Your task to perform on an android device: Show me recent news Image 0: 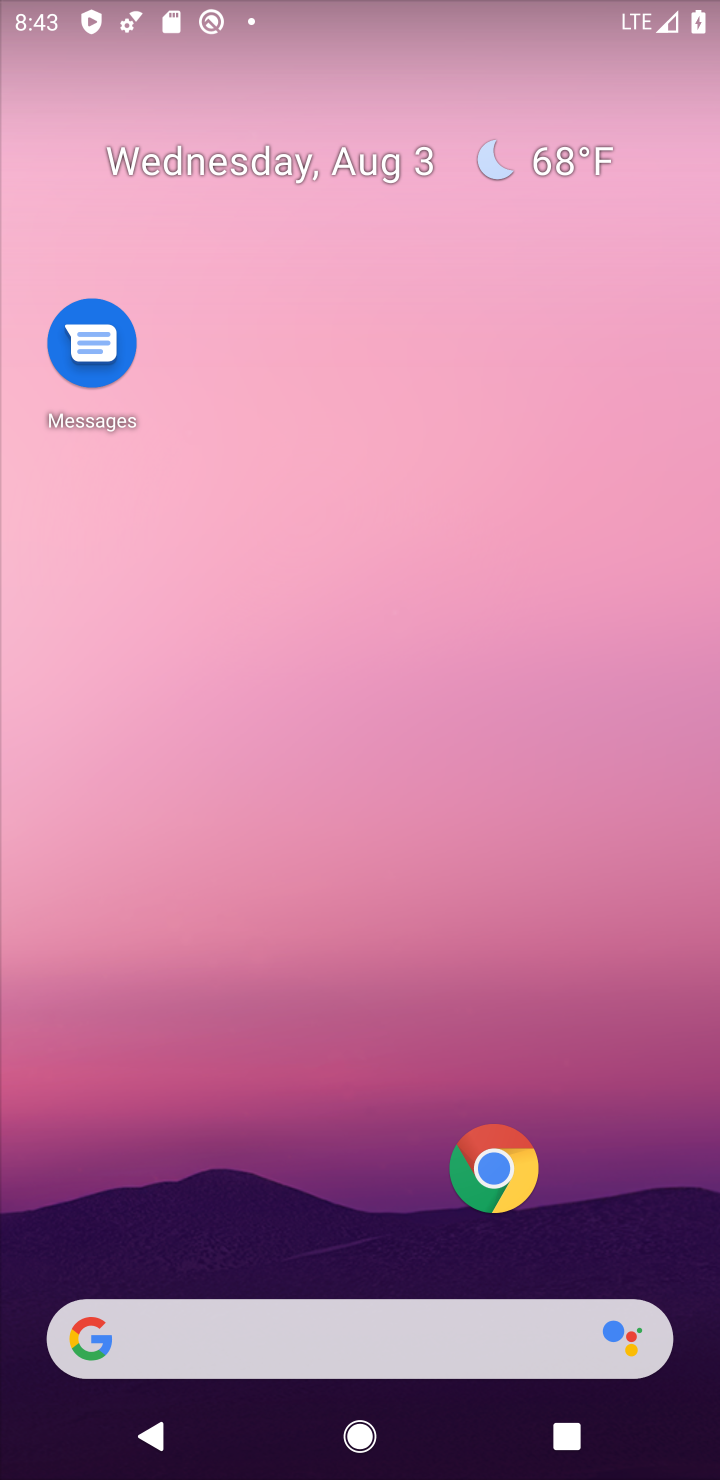
Step 0: press back button
Your task to perform on an android device: Show me recent news Image 1: 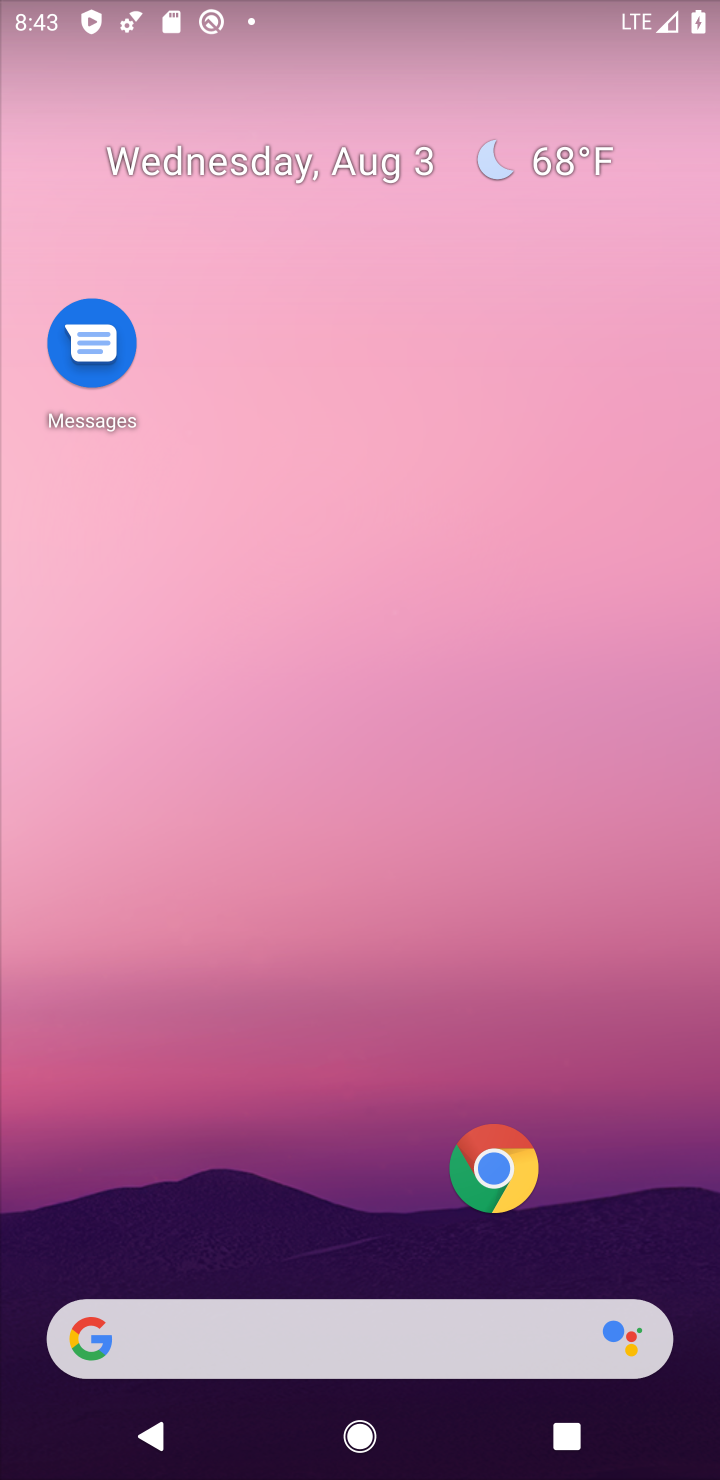
Step 1: click (363, 1313)
Your task to perform on an android device: Show me recent news Image 2: 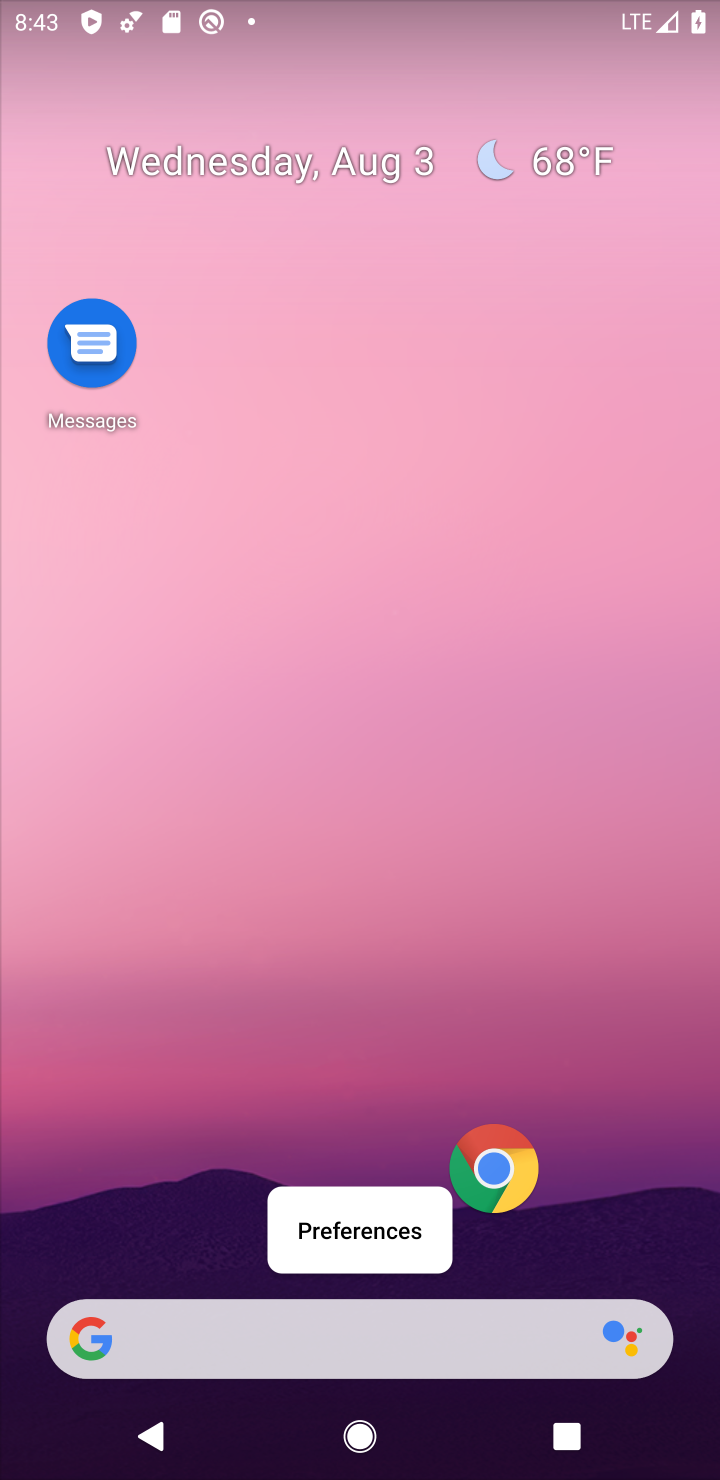
Step 2: click (363, 1299)
Your task to perform on an android device: Show me recent news Image 3: 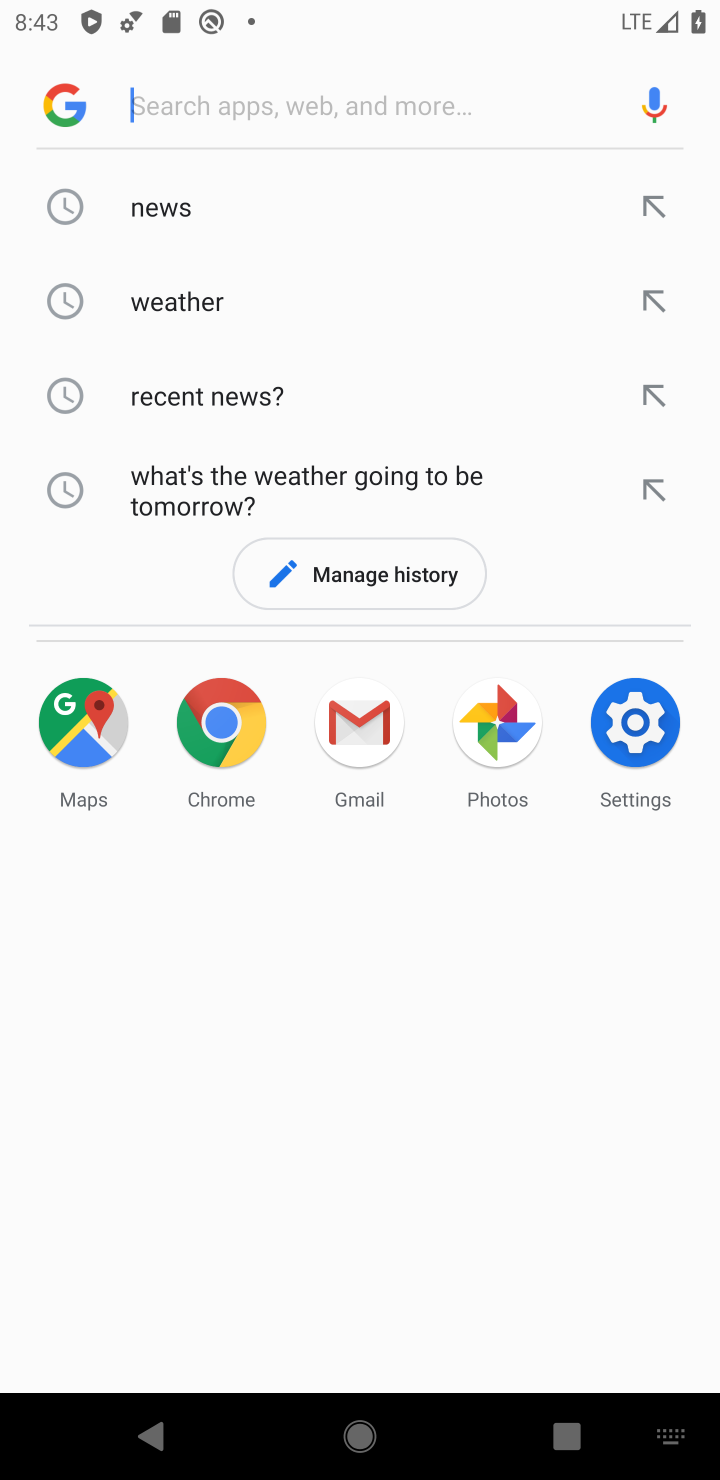
Step 3: click (150, 400)
Your task to perform on an android device: Show me recent news Image 4: 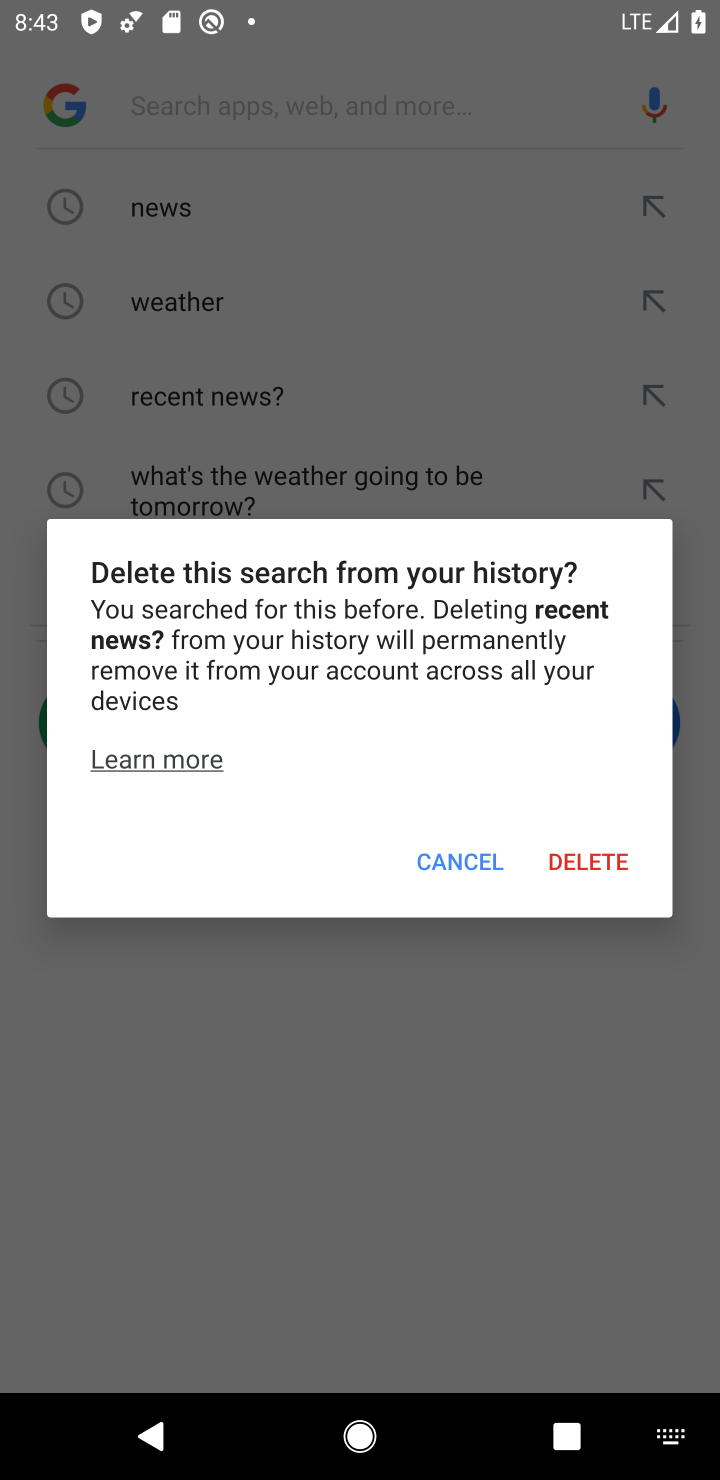
Step 4: click (483, 878)
Your task to perform on an android device: Show me recent news Image 5: 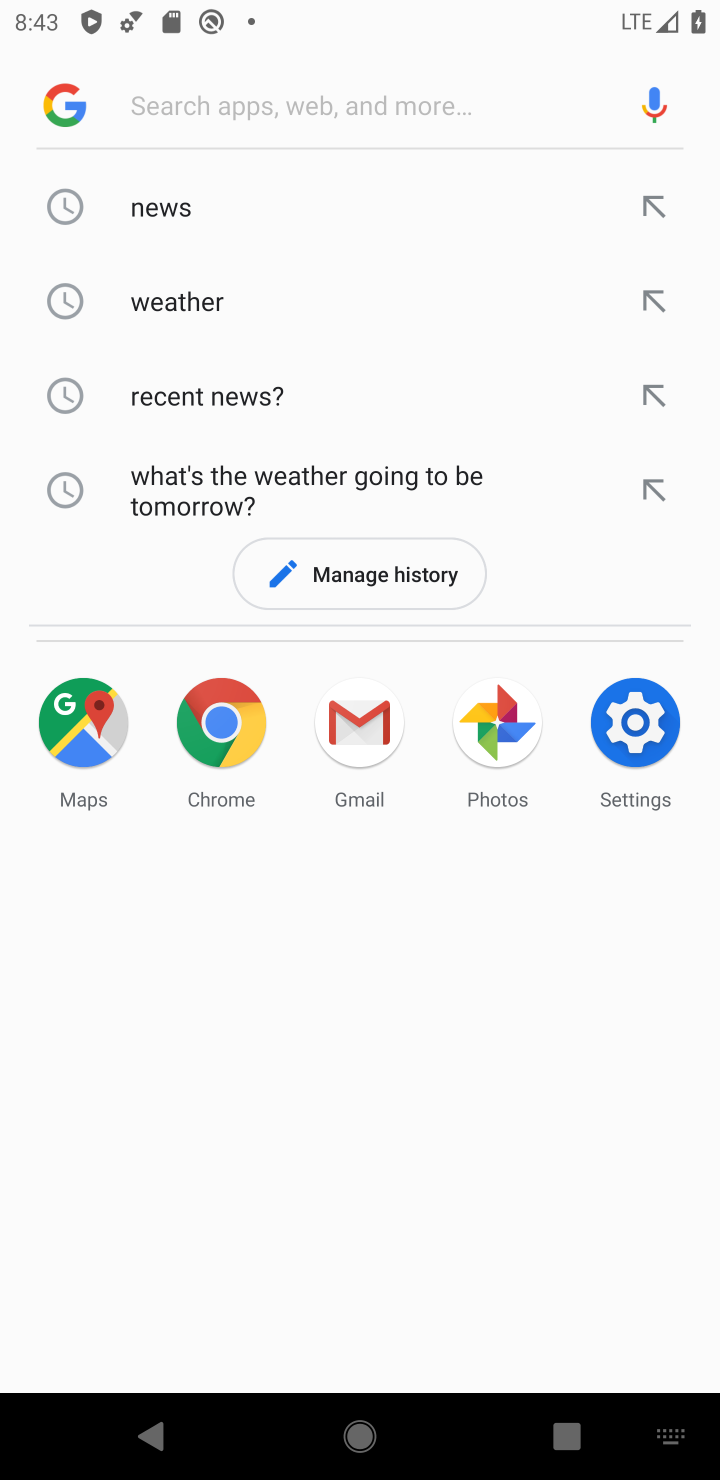
Step 5: click (134, 379)
Your task to perform on an android device: Show me recent news Image 6: 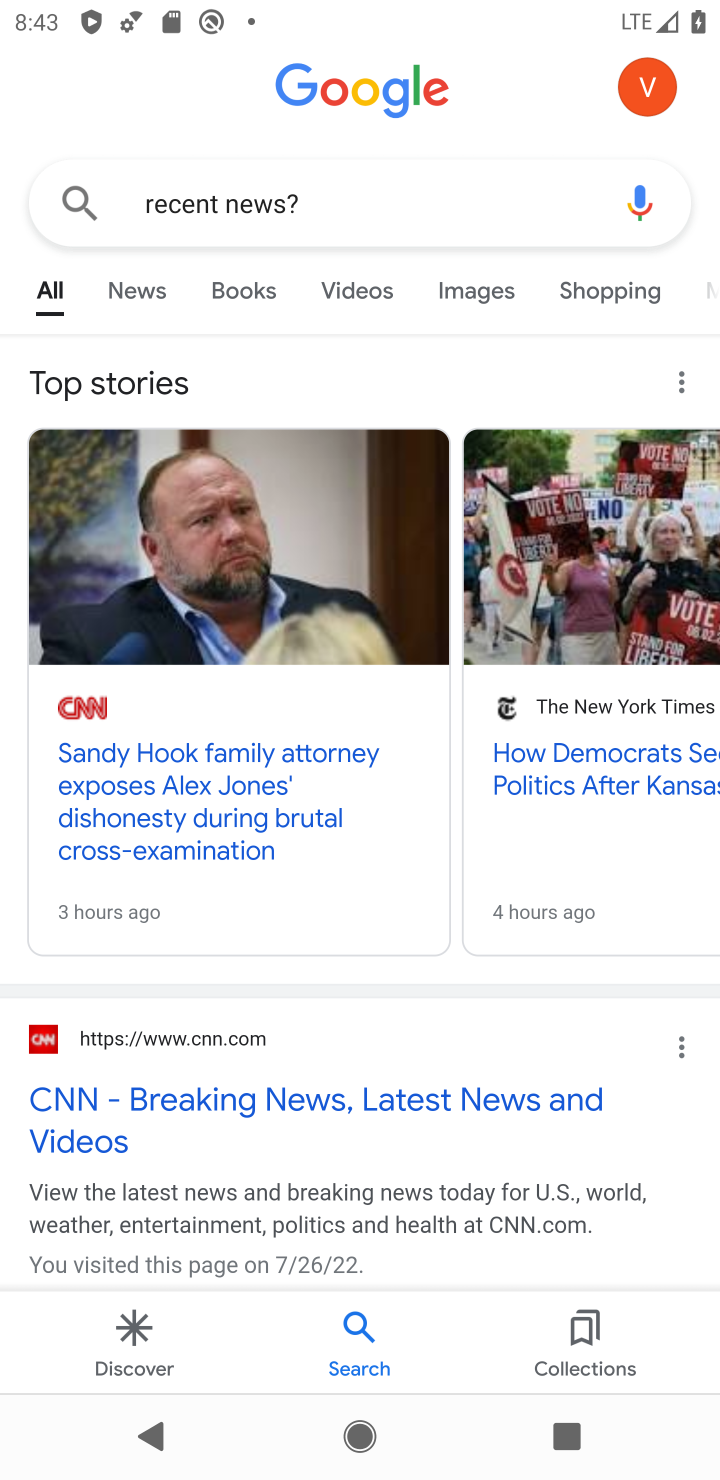
Step 6: click (129, 290)
Your task to perform on an android device: Show me recent news Image 7: 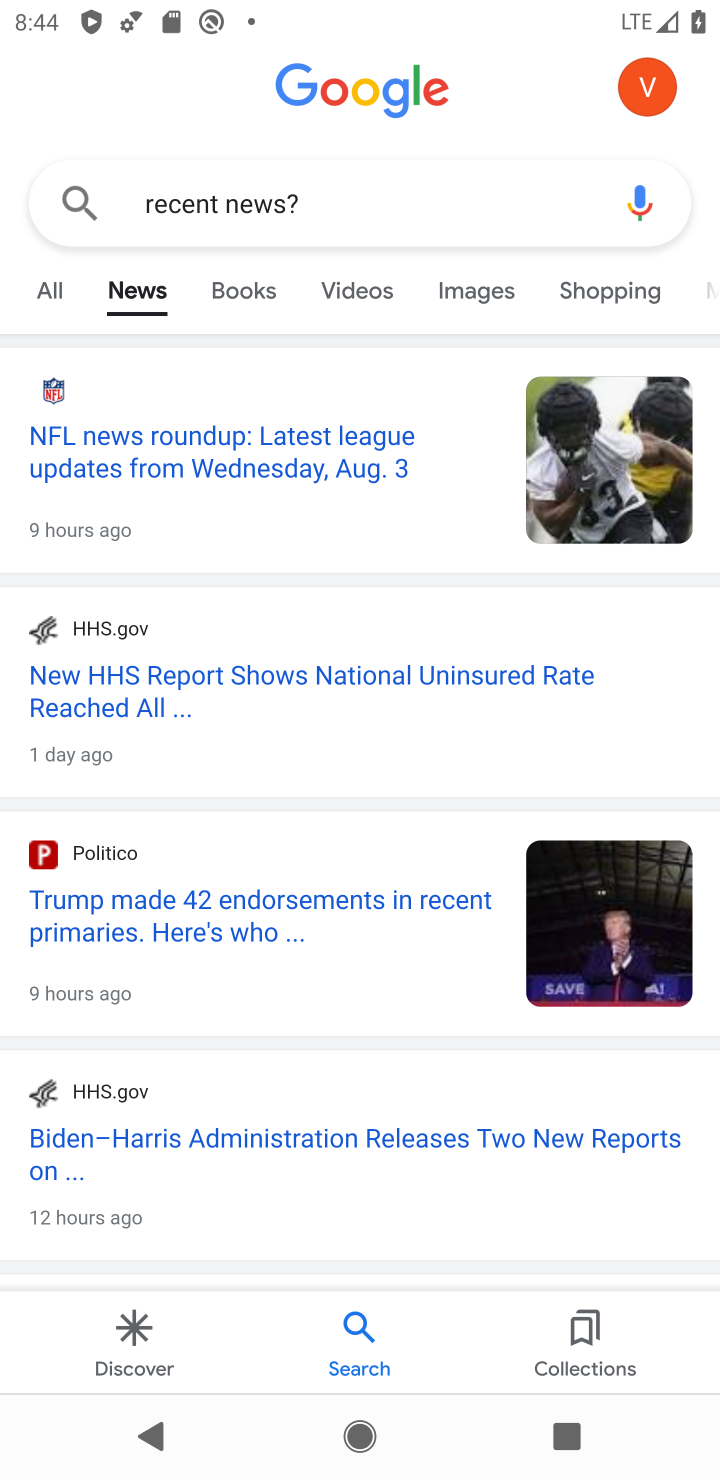
Step 7: task complete